Your task to perform on an android device: turn off smart reply in the gmail app Image 0: 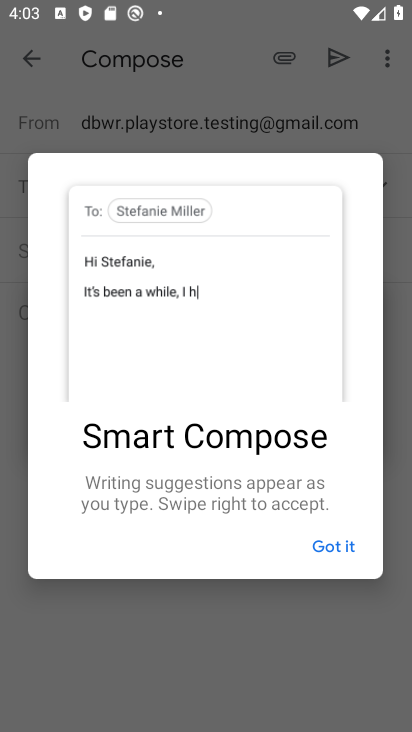
Step 0: press home button
Your task to perform on an android device: turn off smart reply in the gmail app Image 1: 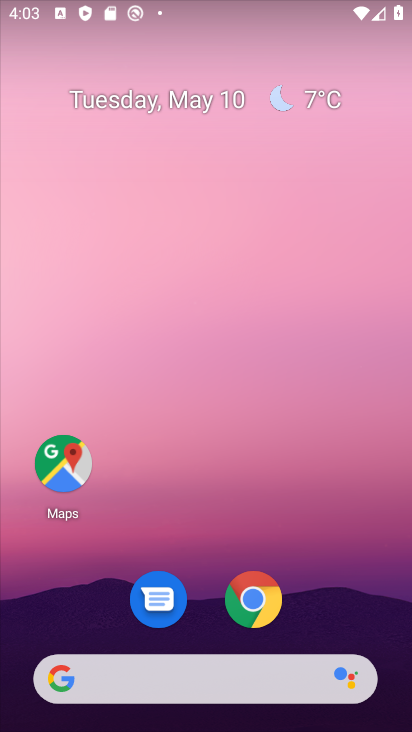
Step 1: drag from (334, 583) to (341, 200)
Your task to perform on an android device: turn off smart reply in the gmail app Image 2: 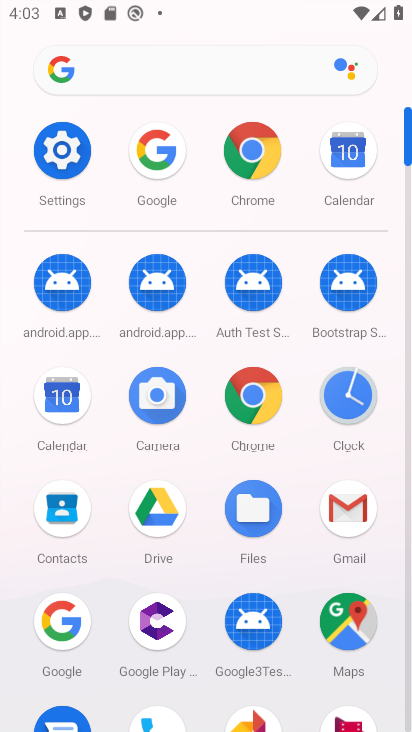
Step 2: click (345, 510)
Your task to perform on an android device: turn off smart reply in the gmail app Image 3: 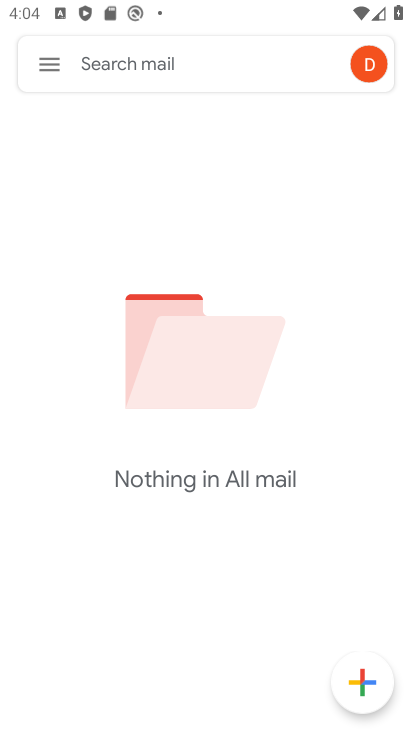
Step 3: click (47, 68)
Your task to perform on an android device: turn off smart reply in the gmail app Image 4: 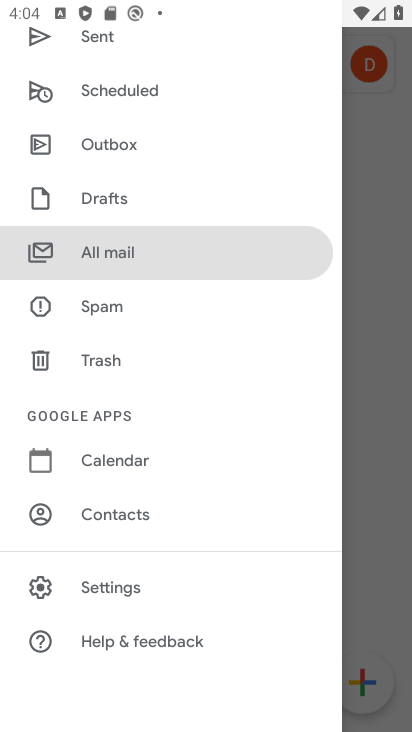
Step 4: click (129, 589)
Your task to perform on an android device: turn off smart reply in the gmail app Image 5: 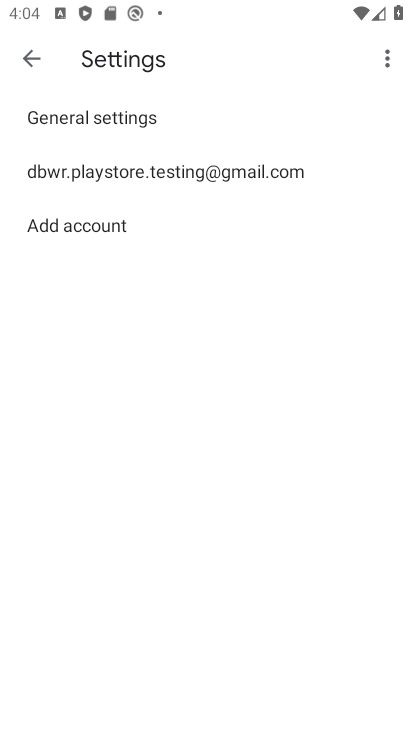
Step 5: click (184, 177)
Your task to perform on an android device: turn off smart reply in the gmail app Image 6: 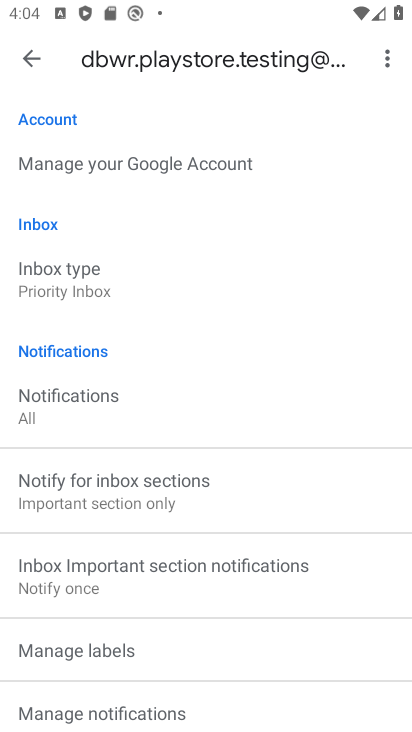
Step 6: drag from (177, 616) to (191, 276)
Your task to perform on an android device: turn off smart reply in the gmail app Image 7: 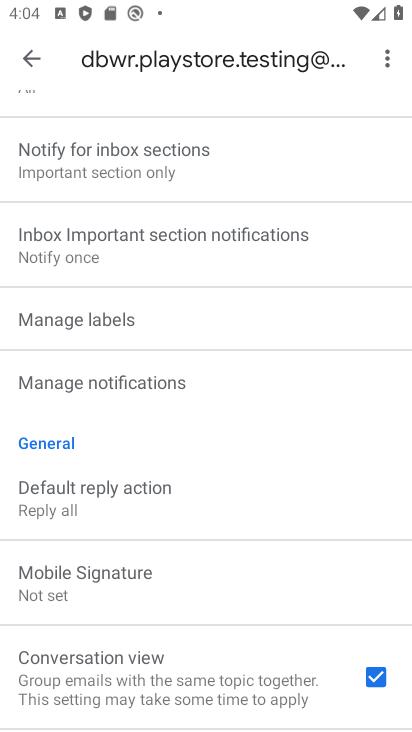
Step 7: drag from (202, 589) to (223, 214)
Your task to perform on an android device: turn off smart reply in the gmail app Image 8: 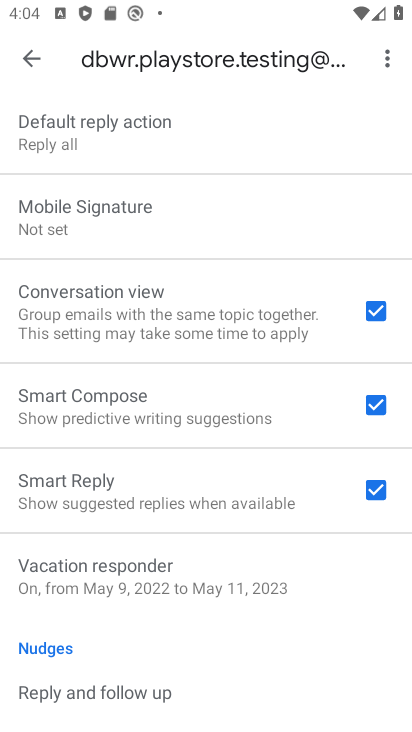
Step 8: click (365, 495)
Your task to perform on an android device: turn off smart reply in the gmail app Image 9: 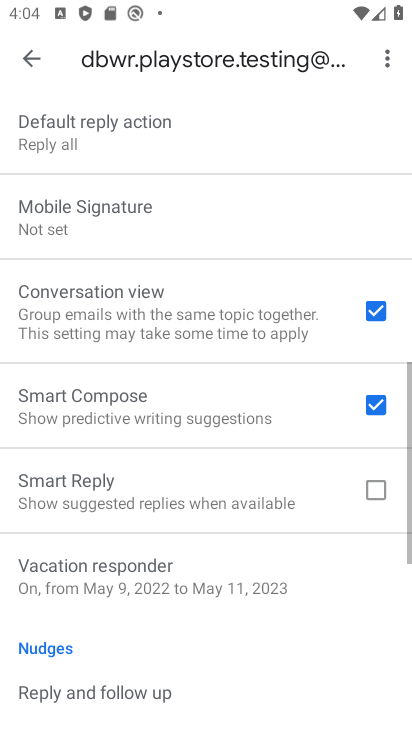
Step 9: task complete